Your task to perform on an android device: add a contact Image 0: 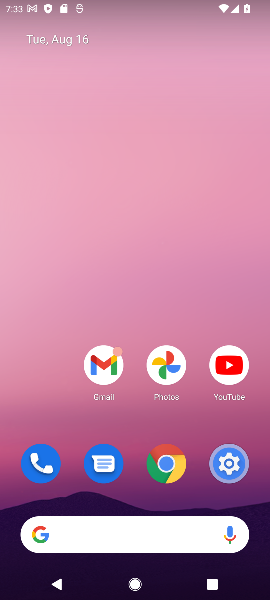
Step 0: drag from (136, 488) to (182, 49)
Your task to perform on an android device: add a contact Image 1: 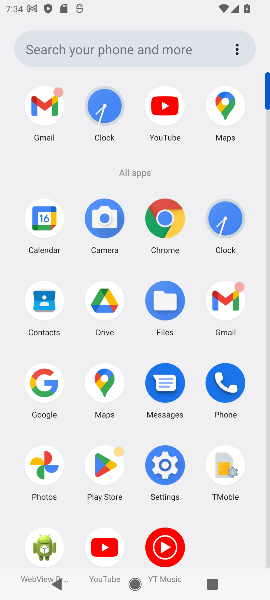
Step 1: click (33, 298)
Your task to perform on an android device: add a contact Image 2: 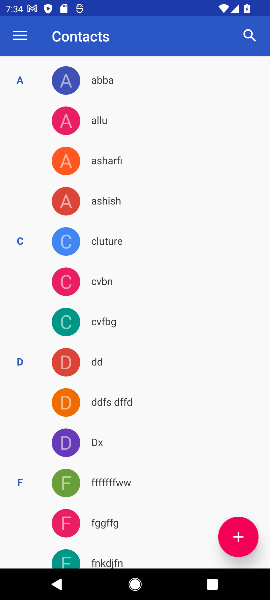
Step 2: click (237, 534)
Your task to perform on an android device: add a contact Image 3: 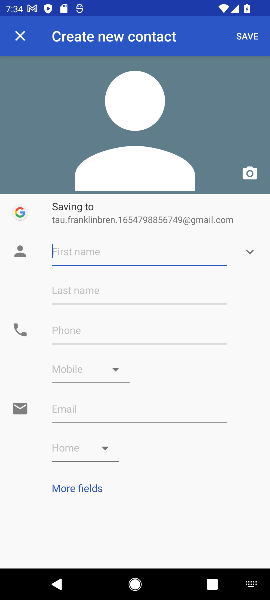
Step 3: type "fames"
Your task to perform on an android device: add a contact Image 4: 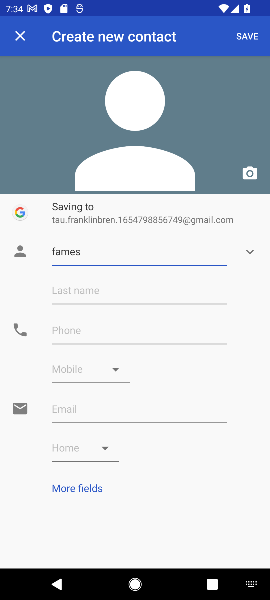
Step 4: click (243, 37)
Your task to perform on an android device: add a contact Image 5: 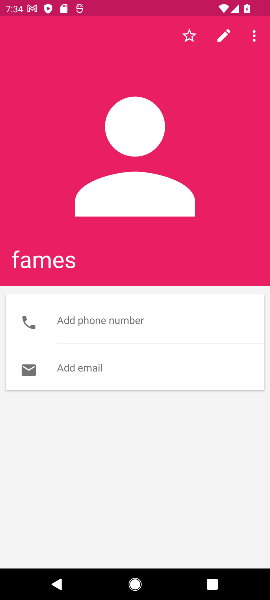
Step 5: task complete